Your task to perform on an android device: Open calendar and show me the second week of next month Image 0: 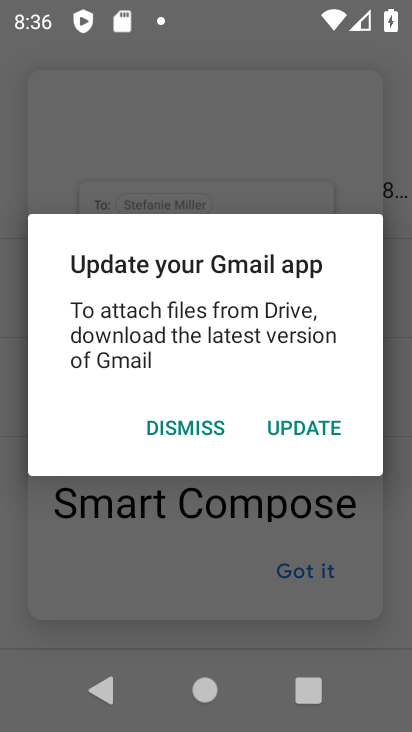
Step 0: press home button
Your task to perform on an android device: Open calendar and show me the second week of next month Image 1: 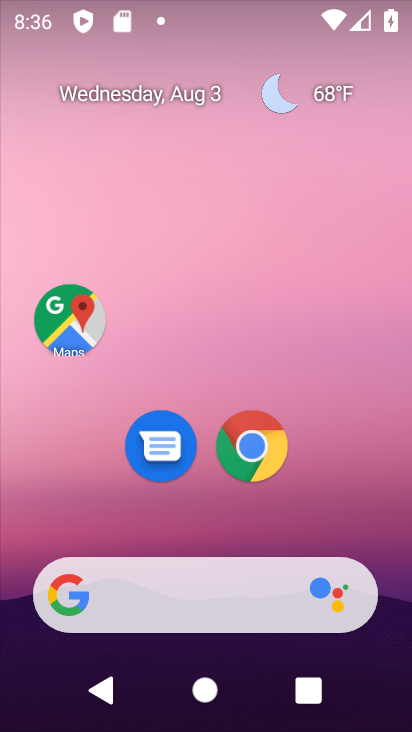
Step 1: drag from (358, 511) to (354, 109)
Your task to perform on an android device: Open calendar and show me the second week of next month Image 2: 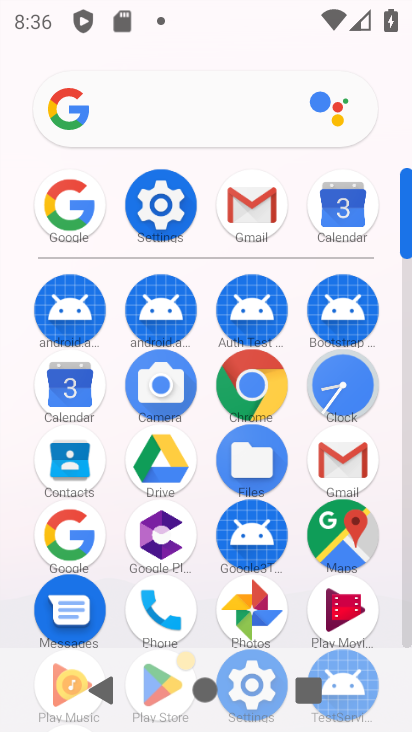
Step 2: click (72, 407)
Your task to perform on an android device: Open calendar and show me the second week of next month Image 3: 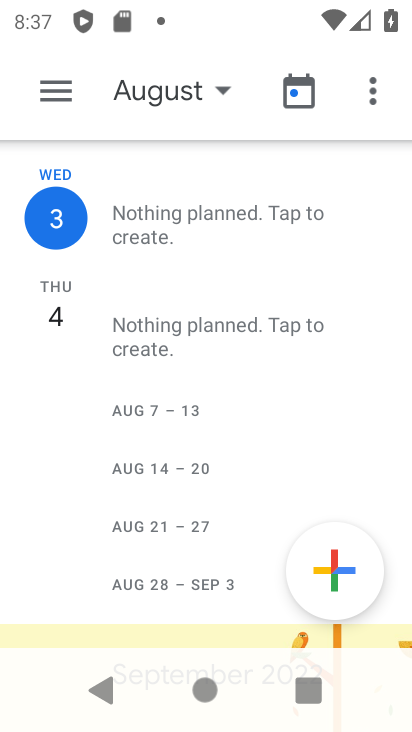
Step 3: click (214, 90)
Your task to perform on an android device: Open calendar and show me the second week of next month Image 4: 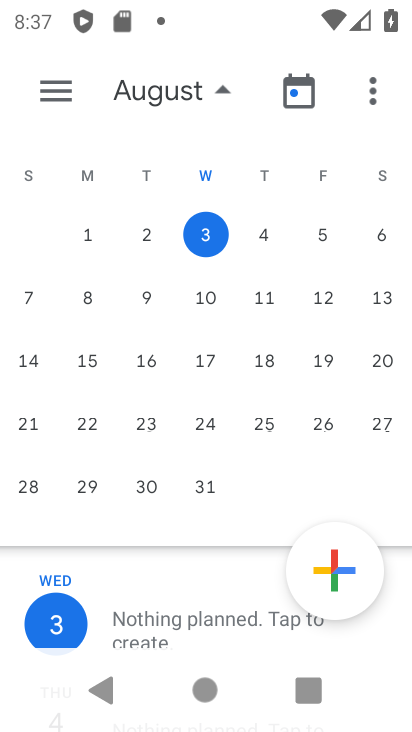
Step 4: drag from (405, 349) to (71, 320)
Your task to perform on an android device: Open calendar and show me the second week of next month Image 5: 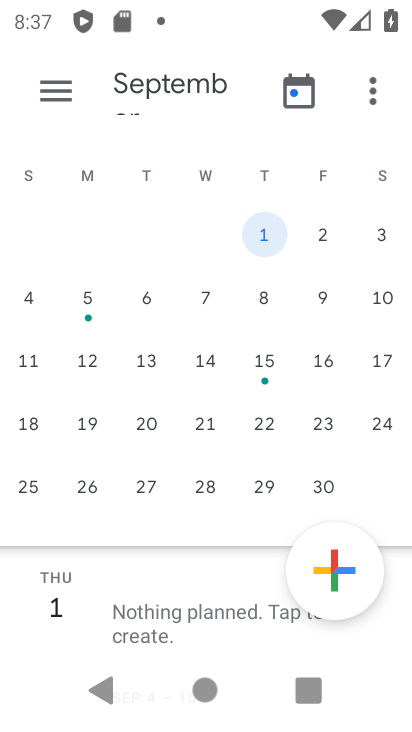
Step 5: click (264, 291)
Your task to perform on an android device: Open calendar and show me the second week of next month Image 6: 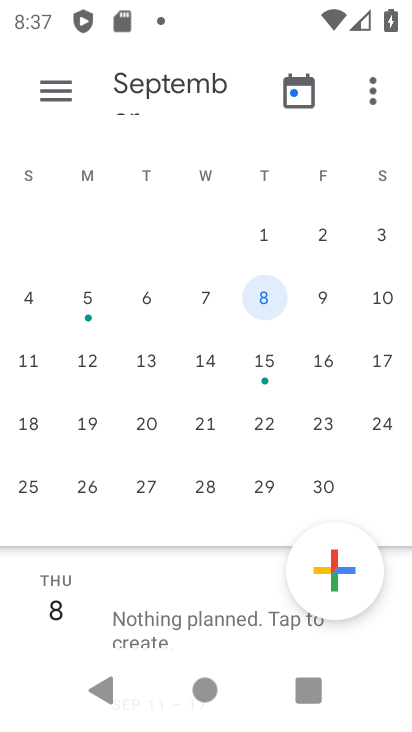
Step 6: click (58, 87)
Your task to perform on an android device: Open calendar and show me the second week of next month Image 7: 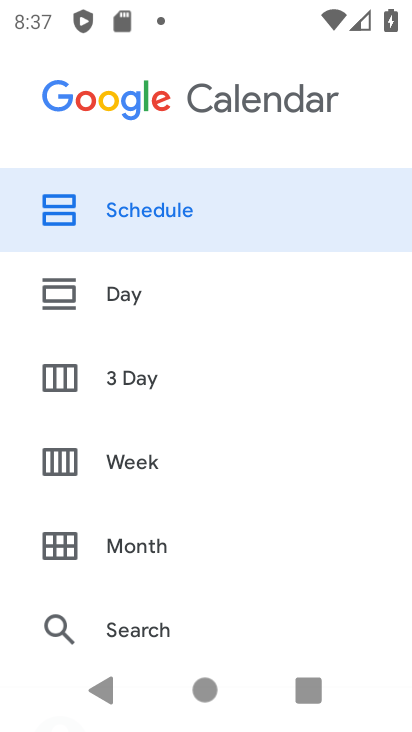
Step 7: click (133, 453)
Your task to perform on an android device: Open calendar and show me the second week of next month Image 8: 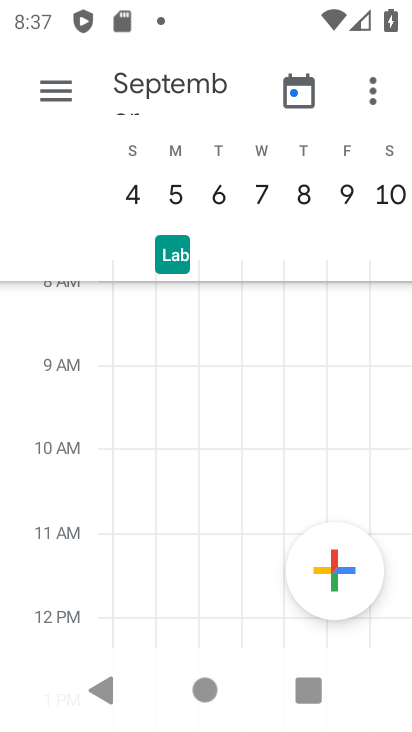
Step 8: task complete